Your task to perform on an android device: find which apps use the phone's location Image 0: 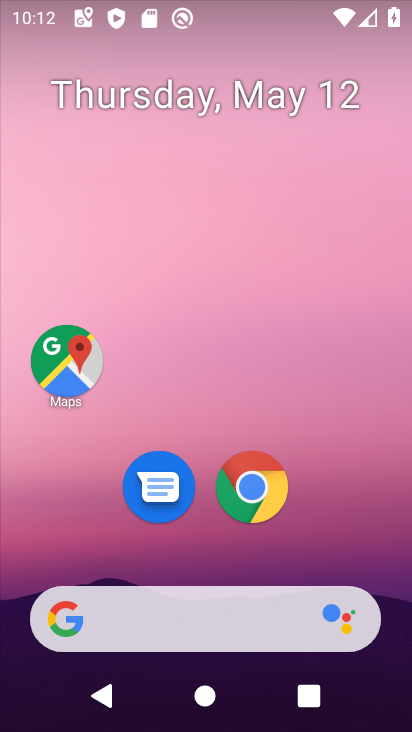
Step 0: press home button
Your task to perform on an android device: find which apps use the phone's location Image 1: 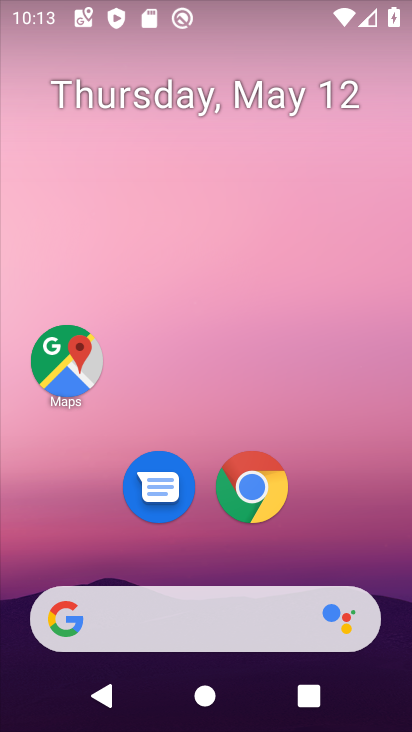
Step 1: drag from (61, 576) to (353, 111)
Your task to perform on an android device: find which apps use the phone's location Image 2: 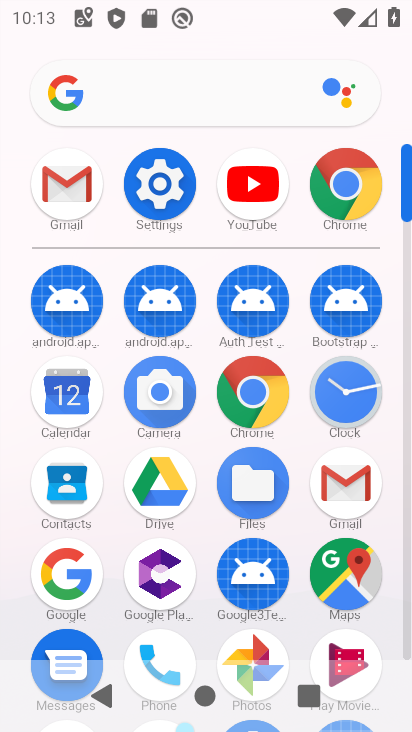
Step 2: click (152, 642)
Your task to perform on an android device: find which apps use the phone's location Image 3: 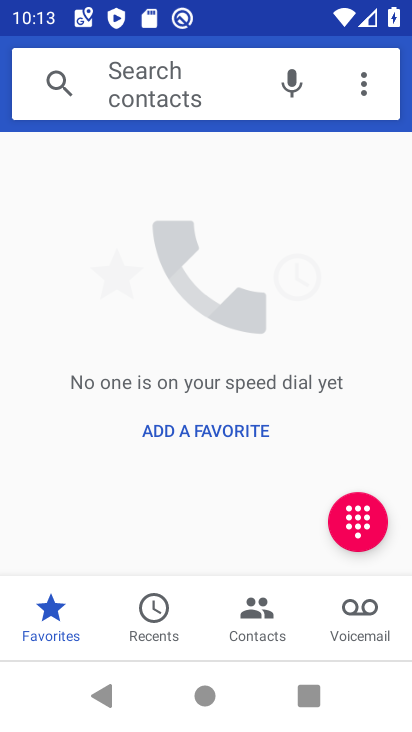
Step 3: press back button
Your task to perform on an android device: find which apps use the phone's location Image 4: 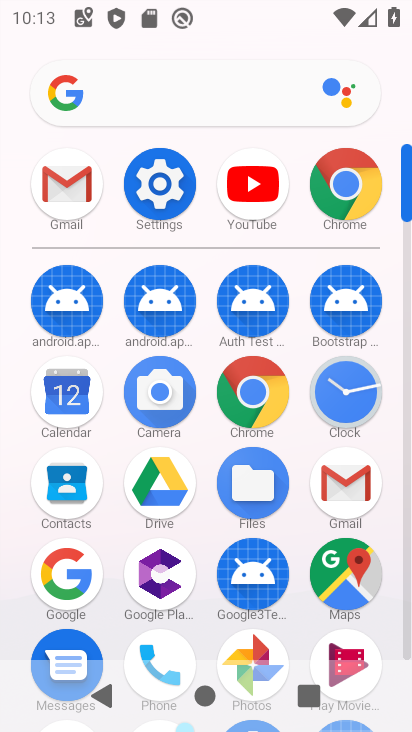
Step 4: click (142, 173)
Your task to perform on an android device: find which apps use the phone's location Image 5: 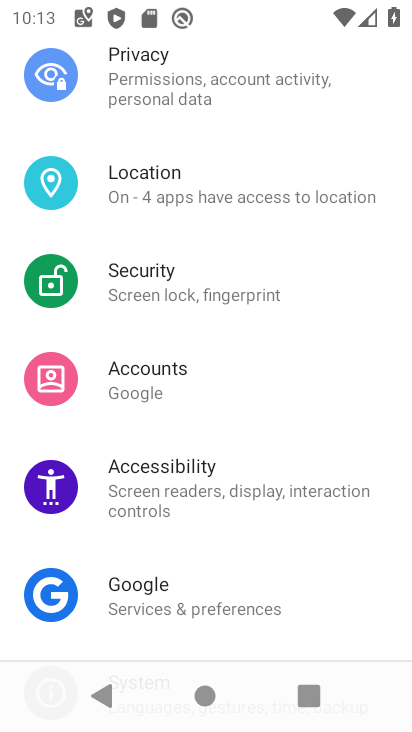
Step 5: click (133, 186)
Your task to perform on an android device: find which apps use the phone's location Image 6: 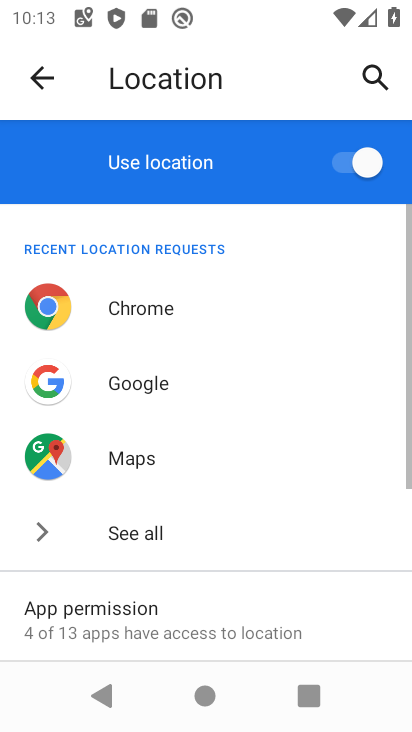
Step 6: click (59, 632)
Your task to perform on an android device: find which apps use the phone's location Image 7: 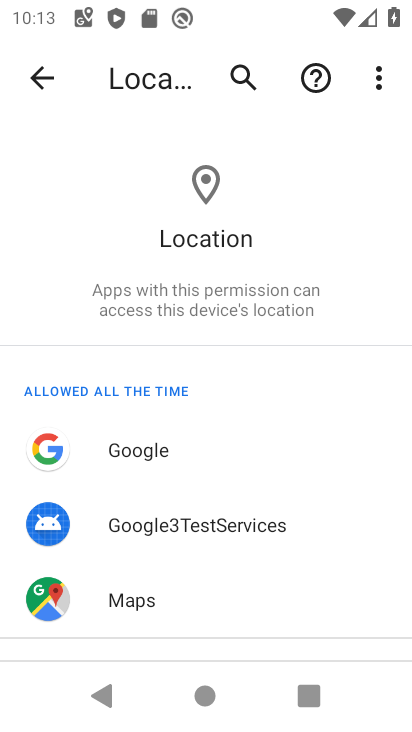
Step 7: task complete